Your task to perform on an android device: Search for Italian restaurants on Maps Image 0: 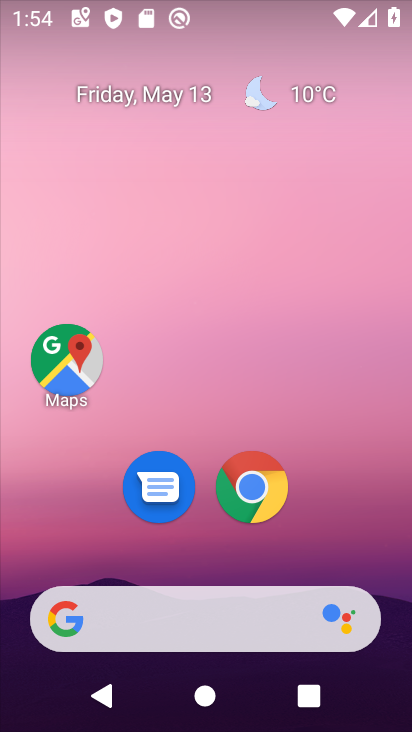
Step 0: click (84, 350)
Your task to perform on an android device: Search for Italian restaurants on Maps Image 1: 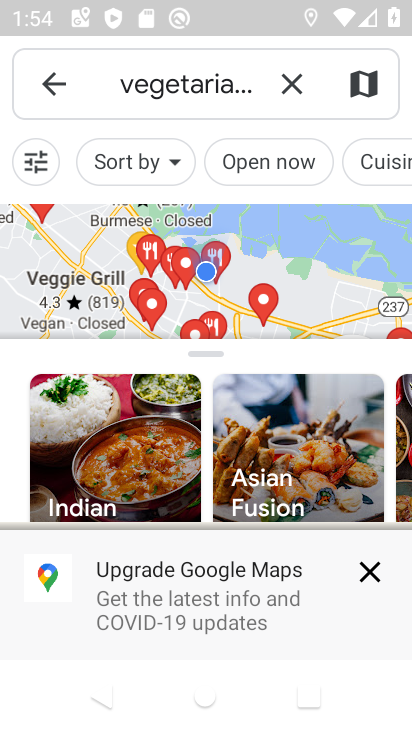
Step 1: click (298, 87)
Your task to perform on an android device: Search for Italian restaurants on Maps Image 2: 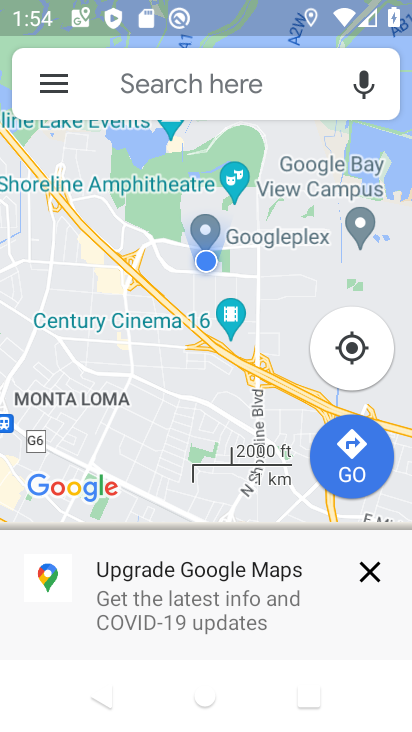
Step 2: click (159, 89)
Your task to perform on an android device: Search for Italian restaurants on Maps Image 3: 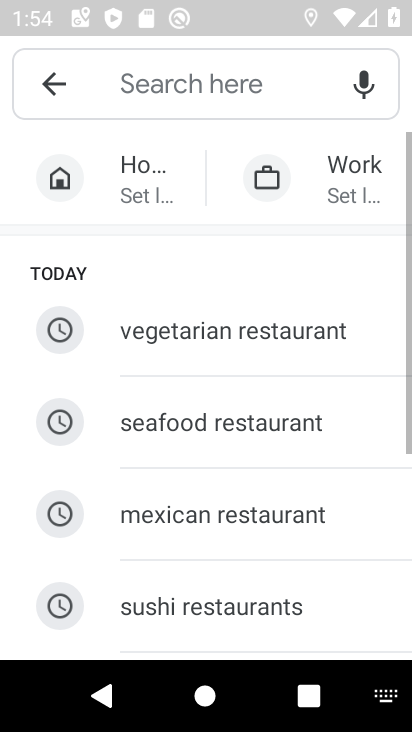
Step 3: type "Italian restaurants"
Your task to perform on an android device: Search for Italian restaurants on Maps Image 4: 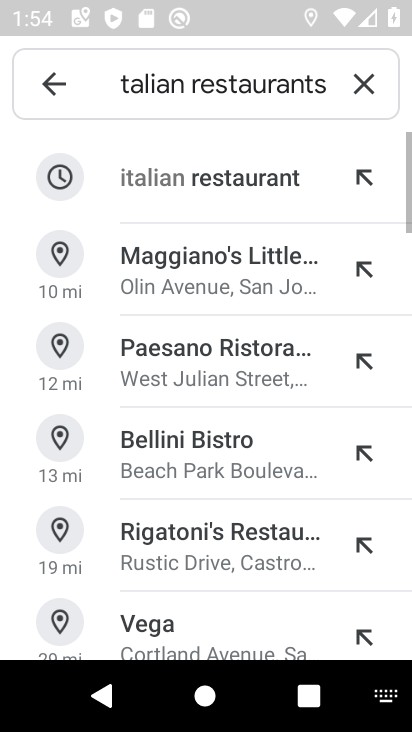
Step 4: click (205, 176)
Your task to perform on an android device: Search for Italian restaurants on Maps Image 5: 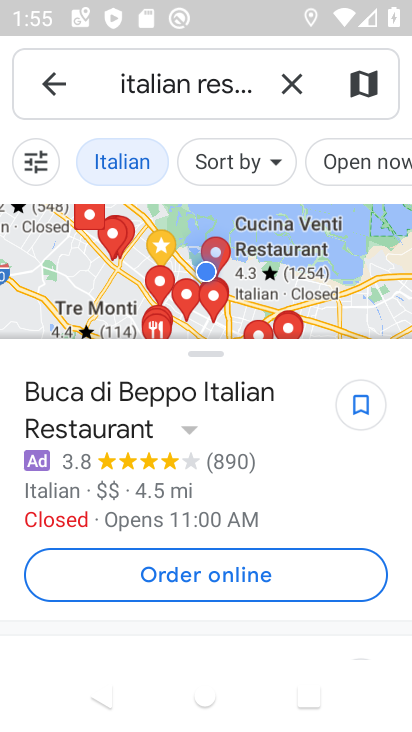
Step 5: task complete